Your task to perform on an android device: find photos in the google photos app Image 0: 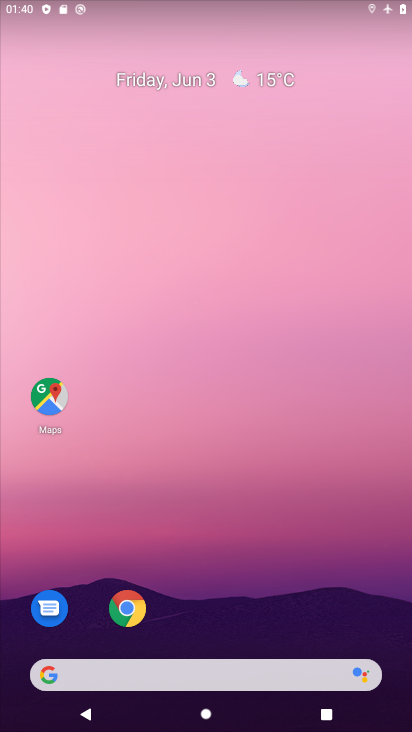
Step 0: drag from (273, 583) to (256, 139)
Your task to perform on an android device: find photos in the google photos app Image 1: 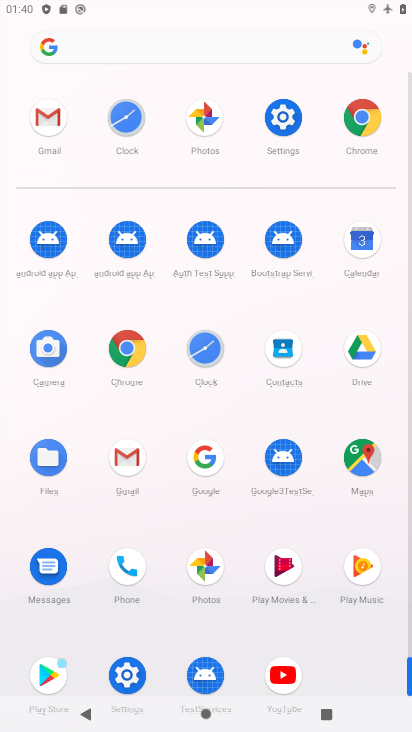
Step 1: click (202, 554)
Your task to perform on an android device: find photos in the google photos app Image 2: 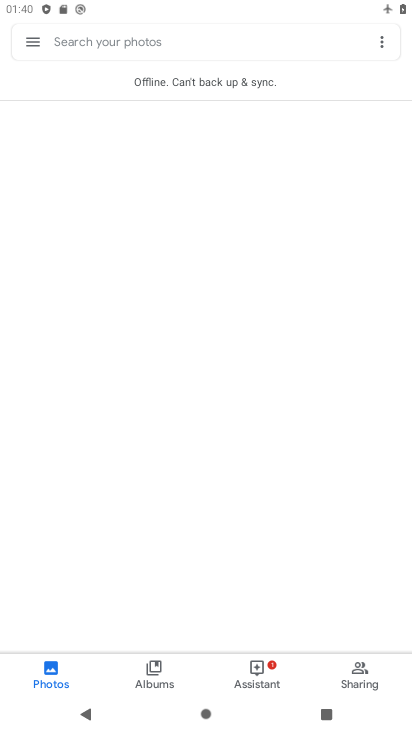
Step 2: task complete